Your task to perform on an android device: Open network settings Image 0: 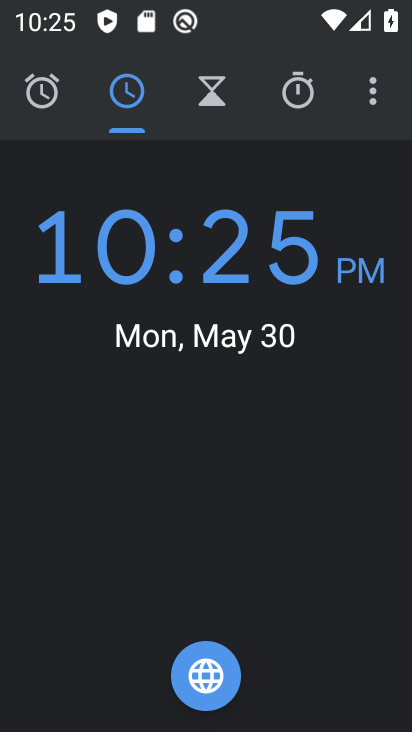
Step 0: press home button
Your task to perform on an android device: Open network settings Image 1: 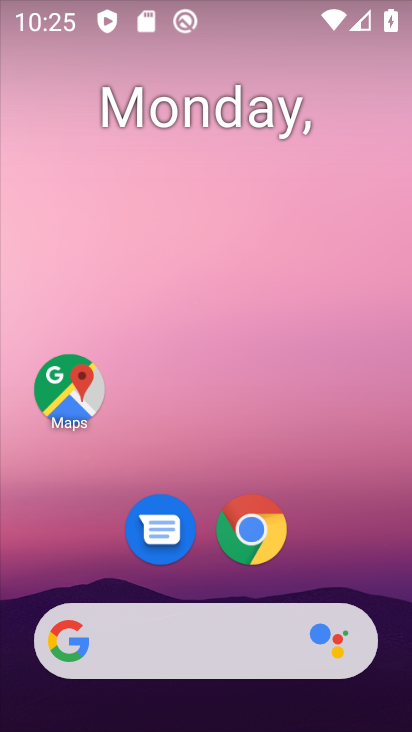
Step 1: drag from (246, 725) to (244, 121)
Your task to perform on an android device: Open network settings Image 2: 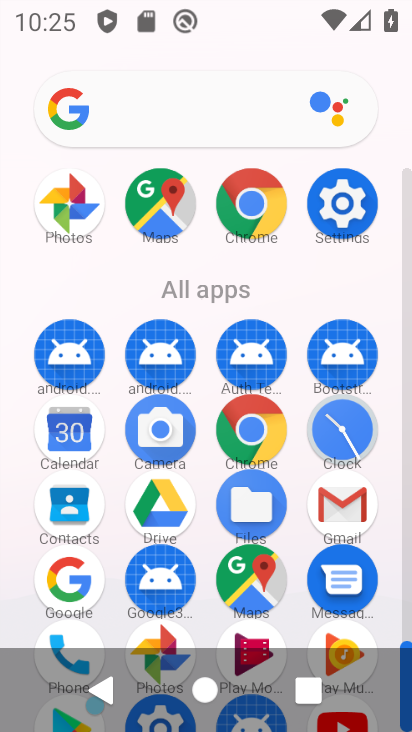
Step 2: click (340, 198)
Your task to perform on an android device: Open network settings Image 3: 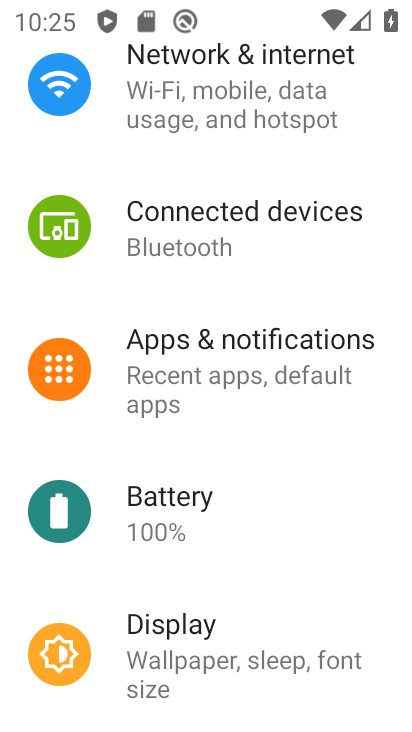
Step 3: click (232, 84)
Your task to perform on an android device: Open network settings Image 4: 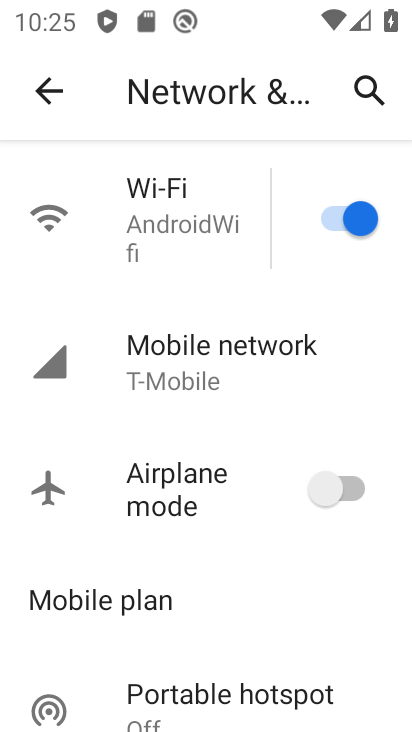
Step 4: click (192, 363)
Your task to perform on an android device: Open network settings Image 5: 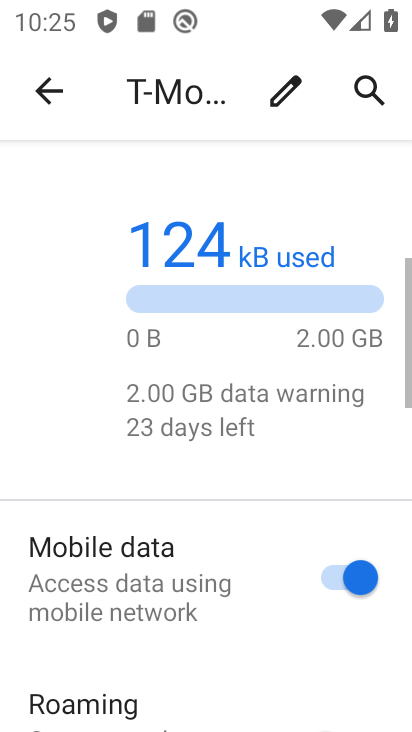
Step 5: task complete